Your task to perform on an android device: install app "Google Keep" Image 0: 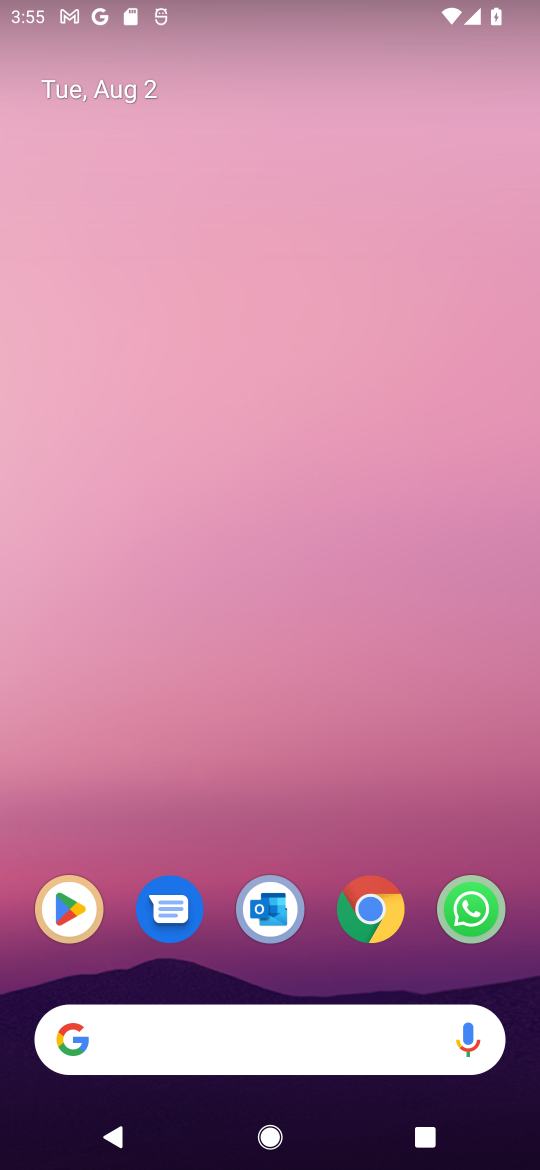
Step 0: drag from (221, 970) to (367, 418)
Your task to perform on an android device: install app "Google Keep" Image 1: 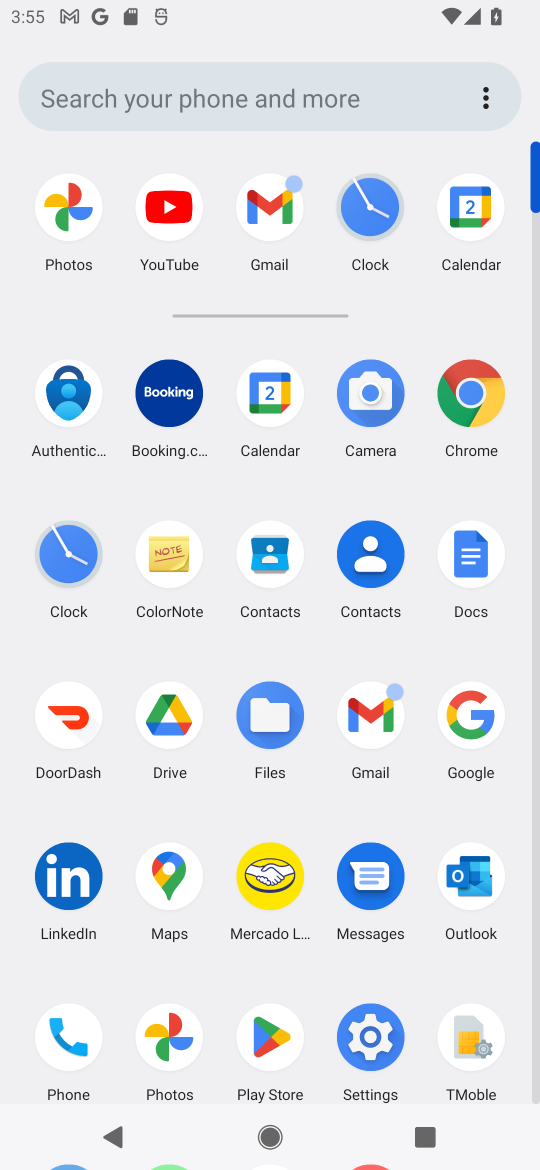
Step 1: click (245, 1039)
Your task to perform on an android device: install app "Google Keep" Image 2: 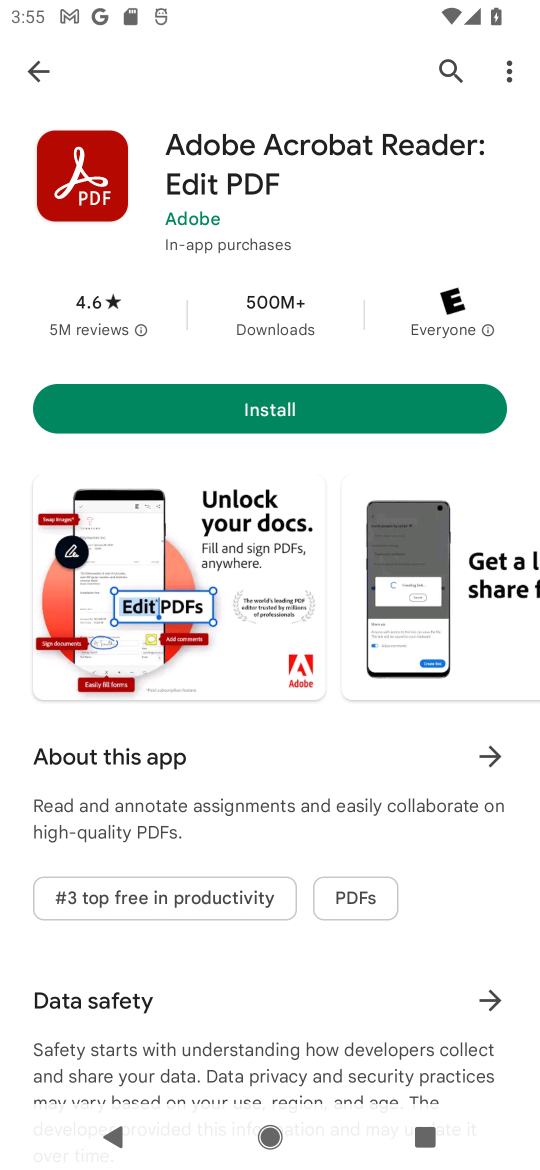
Step 2: click (458, 80)
Your task to perform on an android device: install app "Google Keep" Image 3: 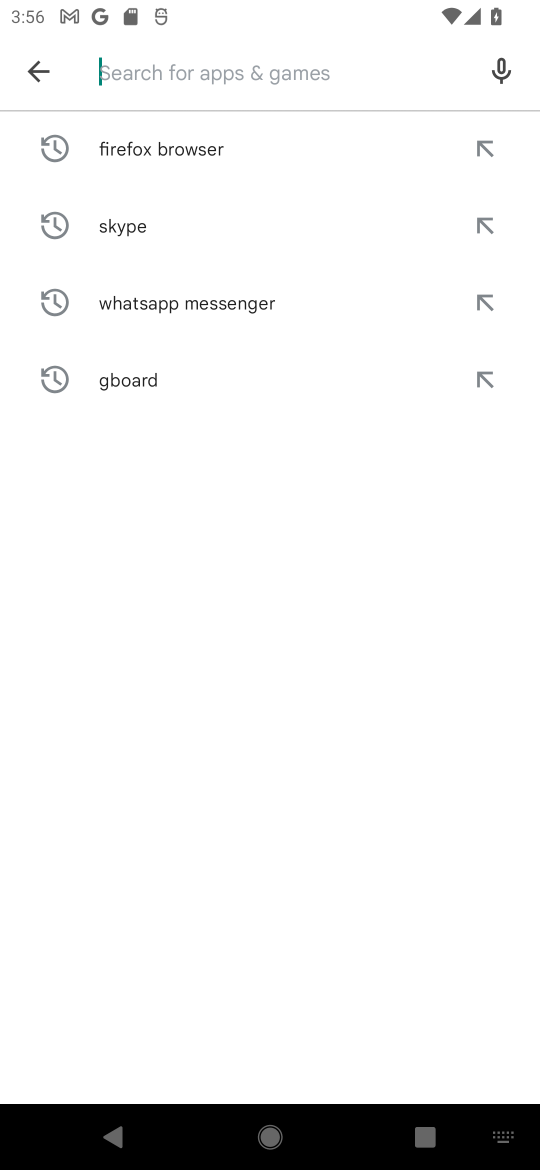
Step 3: type "Google Keep"
Your task to perform on an android device: install app "Google Keep" Image 4: 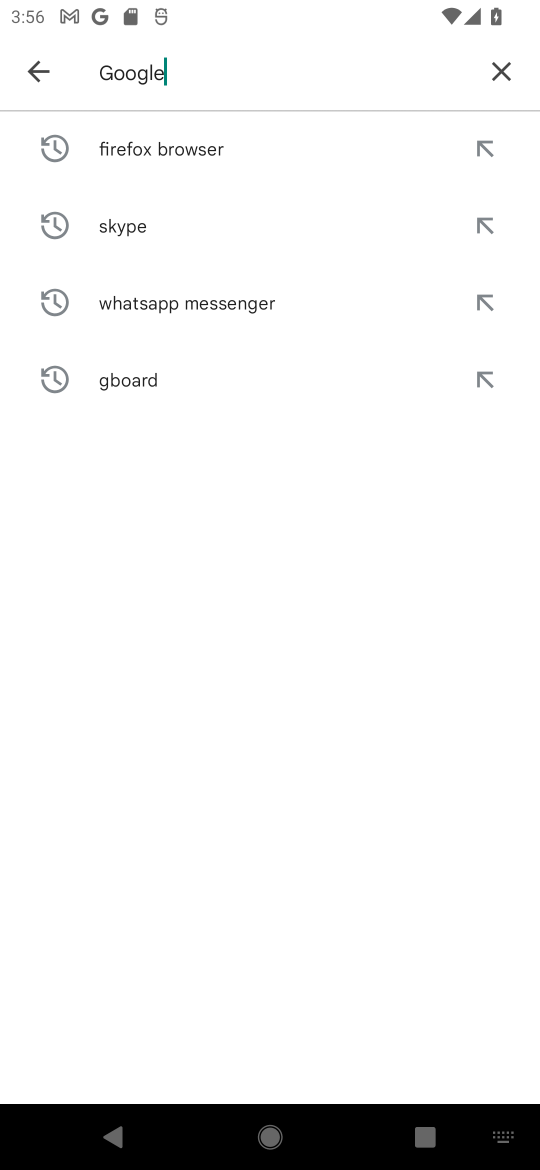
Step 4: type ""
Your task to perform on an android device: install app "Google Keep" Image 5: 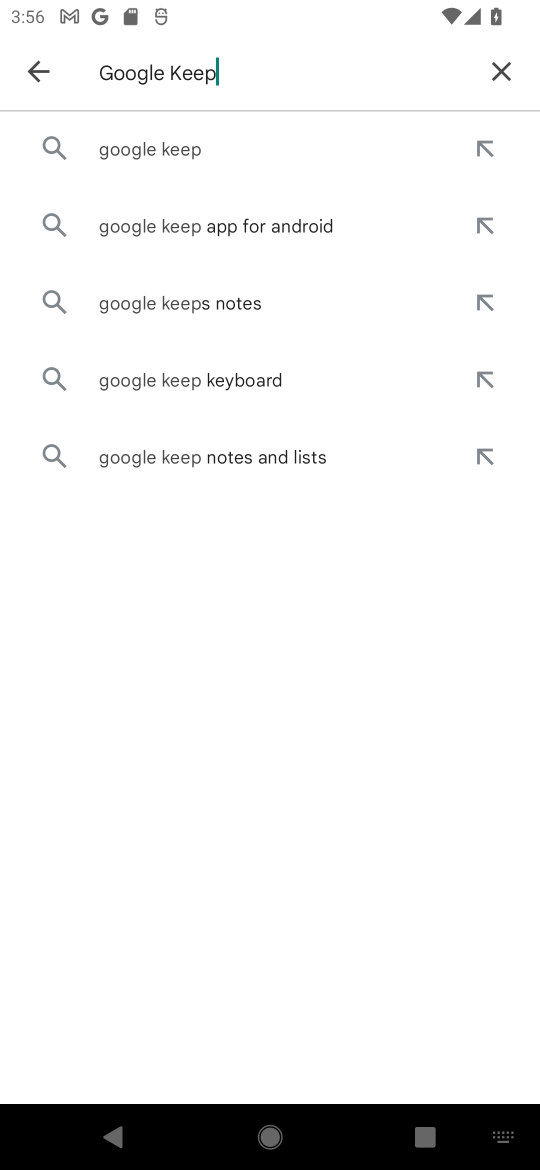
Step 5: click (203, 154)
Your task to perform on an android device: install app "Google Keep" Image 6: 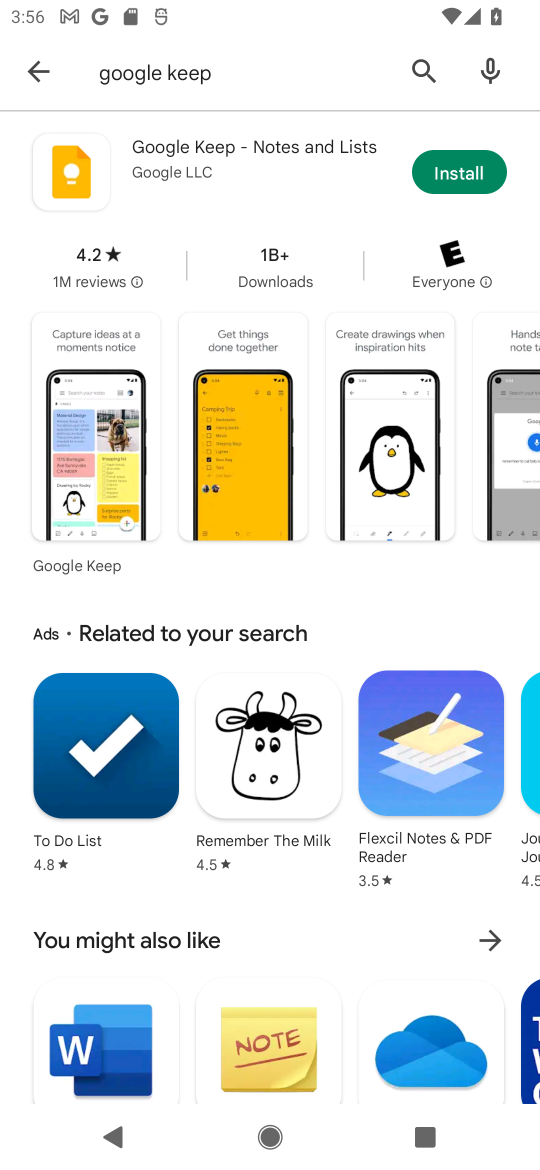
Step 6: click (158, 160)
Your task to perform on an android device: install app "Google Keep" Image 7: 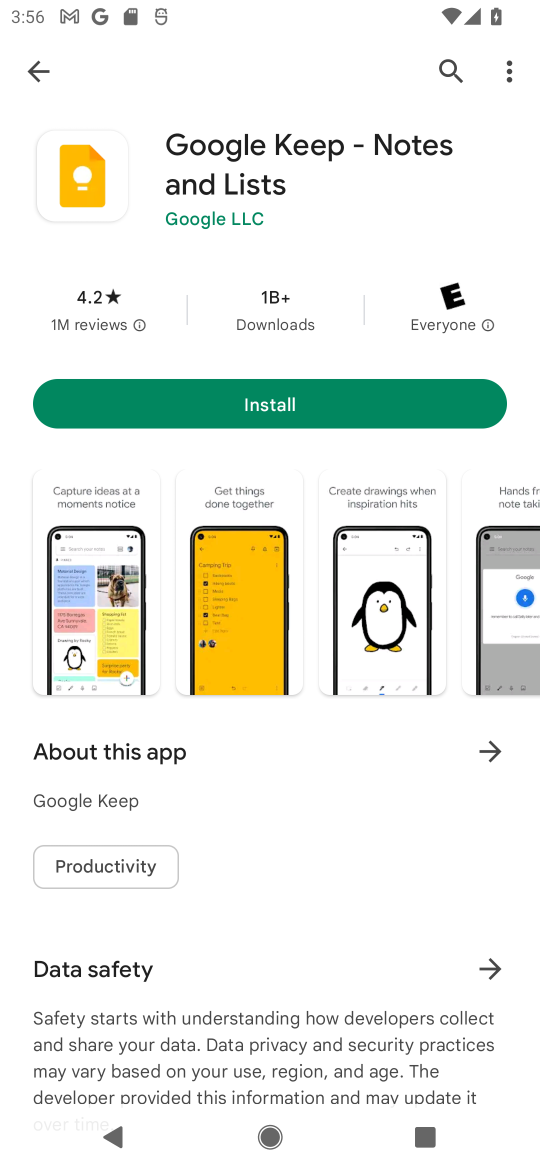
Step 7: drag from (255, 822) to (305, 449)
Your task to perform on an android device: install app "Google Keep" Image 8: 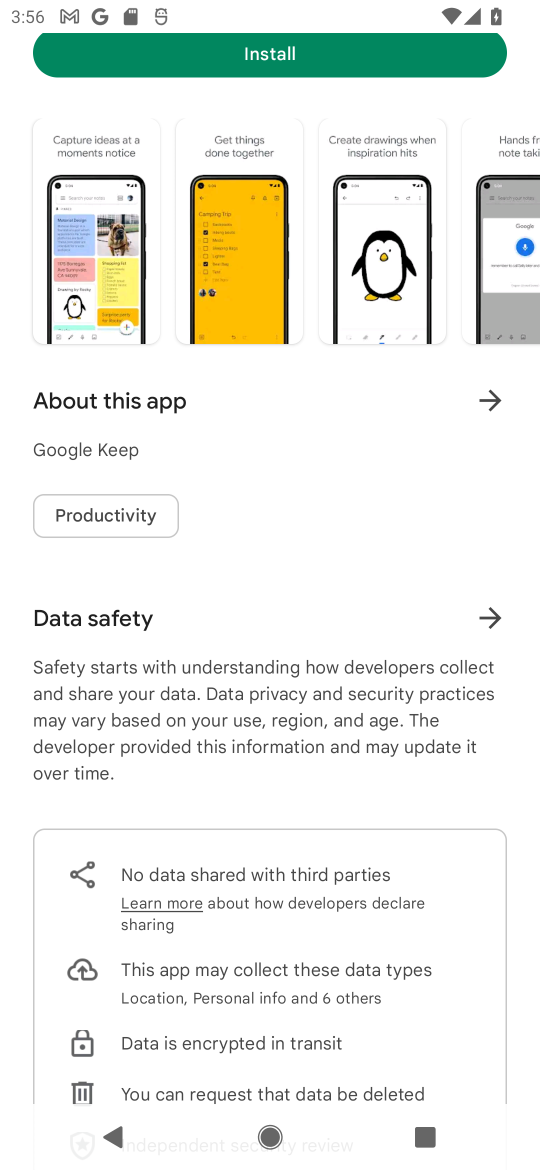
Step 8: drag from (300, 166) to (538, 328)
Your task to perform on an android device: install app "Google Keep" Image 9: 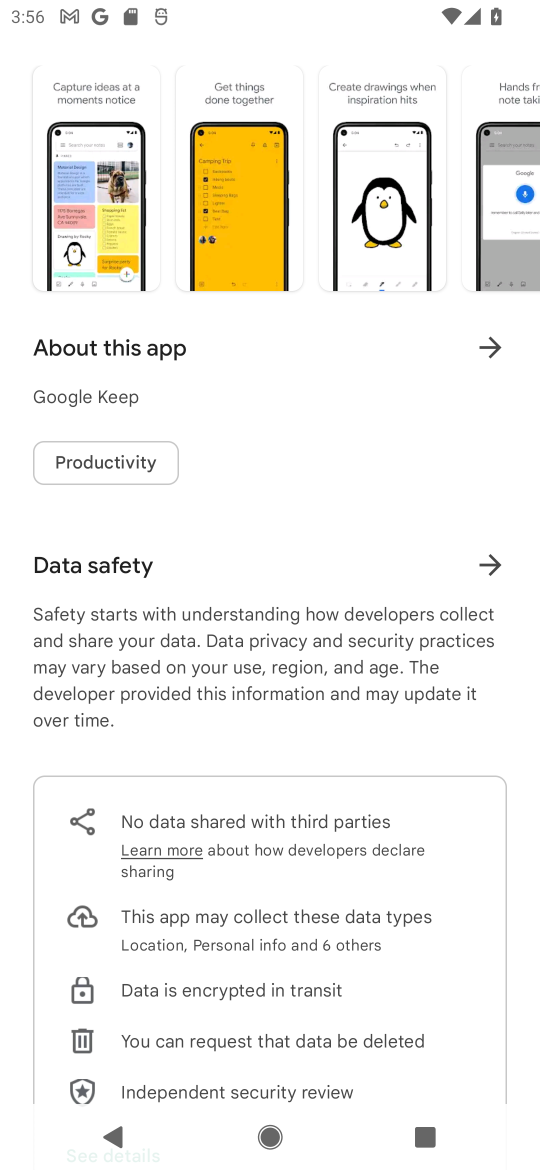
Step 9: drag from (285, 185) to (465, 849)
Your task to perform on an android device: install app "Google Keep" Image 10: 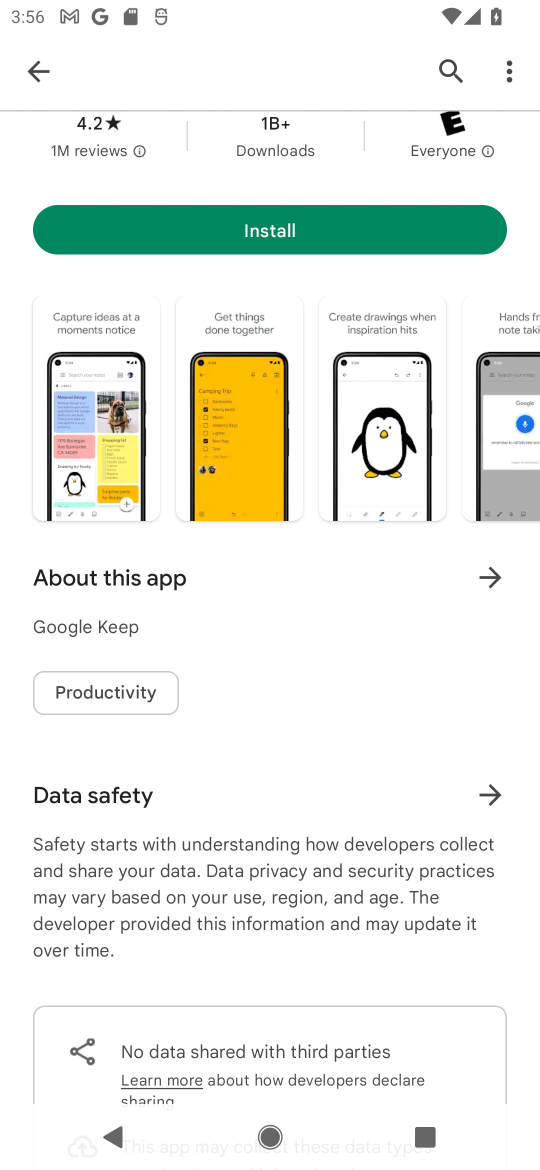
Step 10: drag from (341, 212) to (526, 13)
Your task to perform on an android device: install app "Google Keep" Image 11: 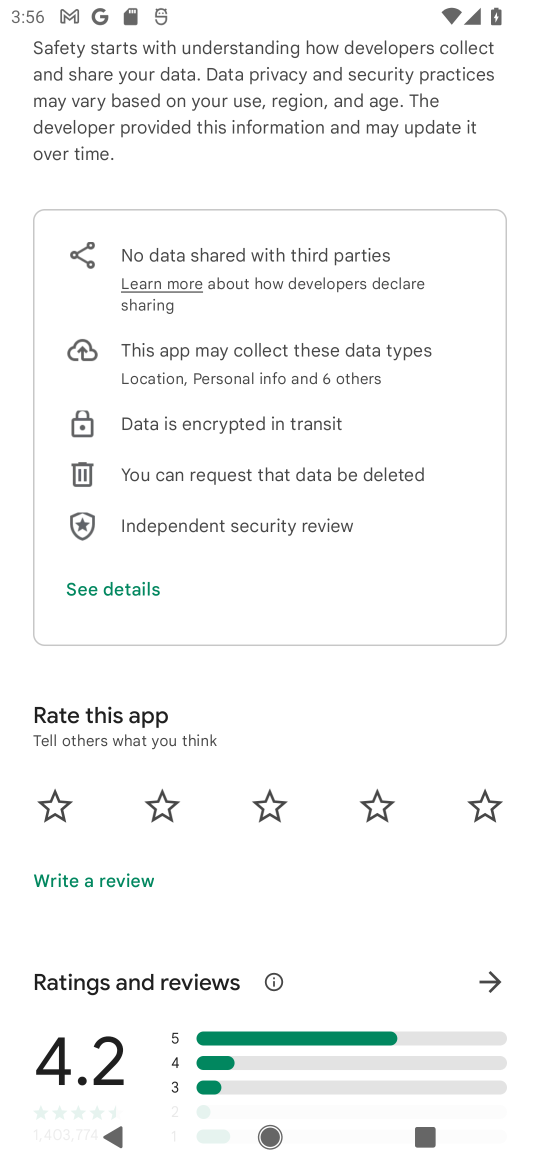
Step 11: drag from (324, 284) to (530, 740)
Your task to perform on an android device: install app "Google Keep" Image 12: 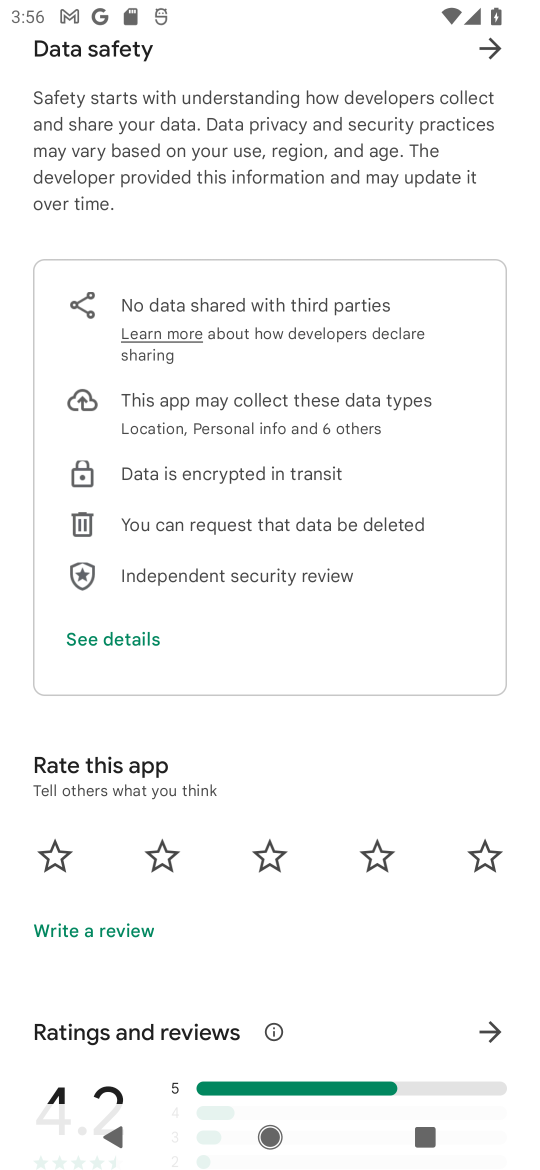
Step 12: drag from (230, 214) to (370, 1065)
Your task to perform on an android device: install app "Google Keep" Image 13: 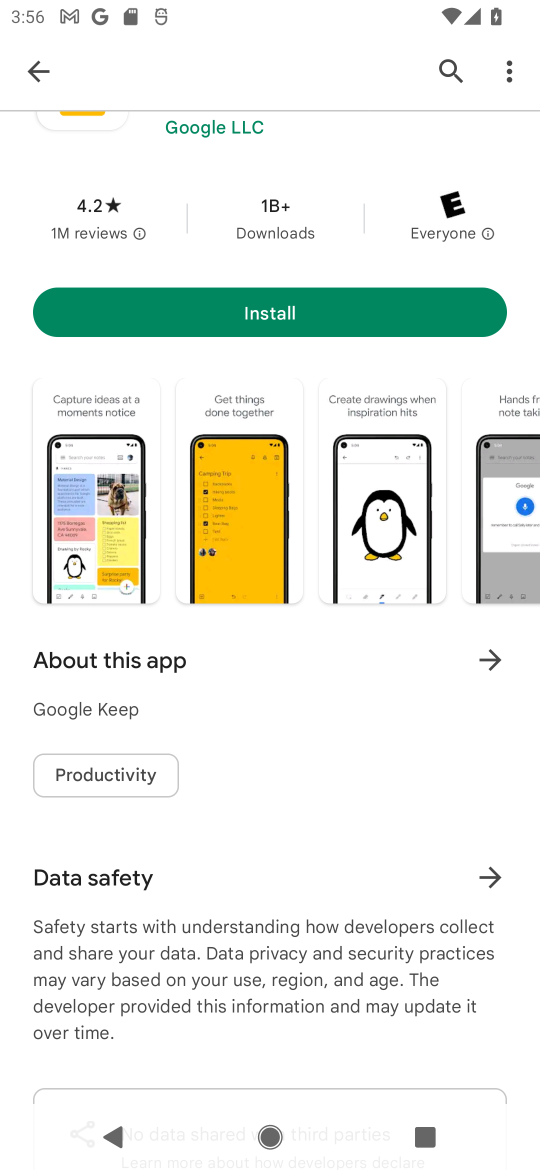
Step 13: drag from (319, 179) to (402, 1131)
Your task to perform on an android device: install app "Google Keep" Image 14: 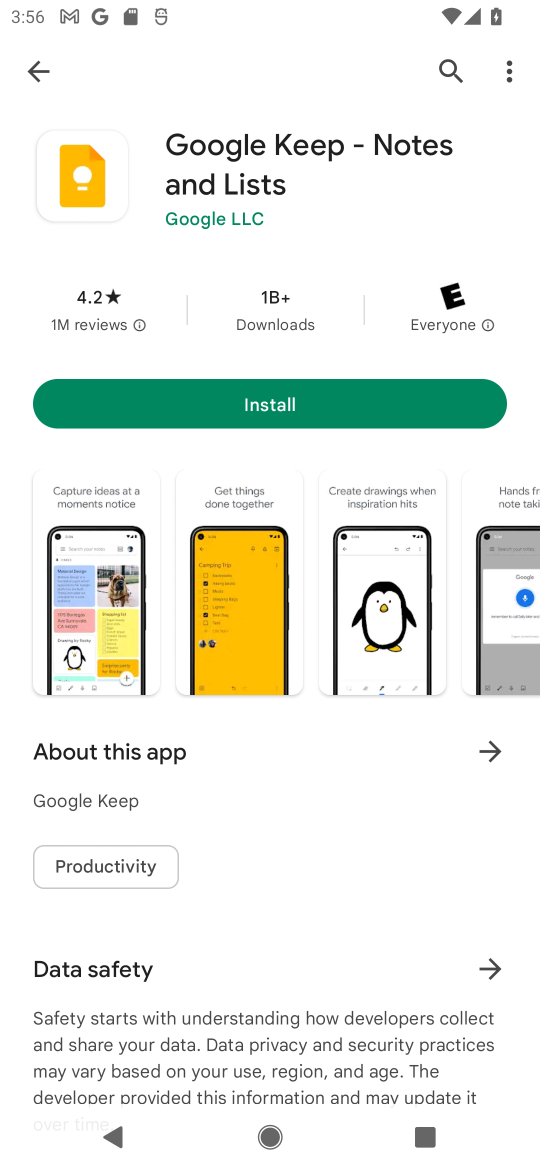
Step 14: click (229, 397)
Your task to perform on an android device: install app "Google Keep" Image 15: 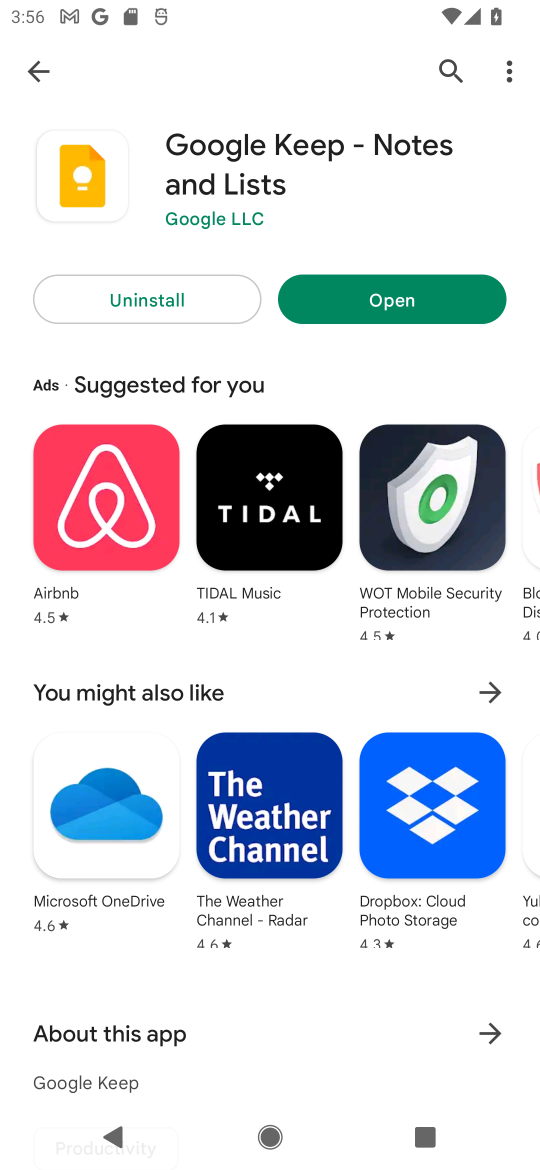
Step 15: task complete